Your task to perform on an android device: Do I have any events this weekend? Image 0: 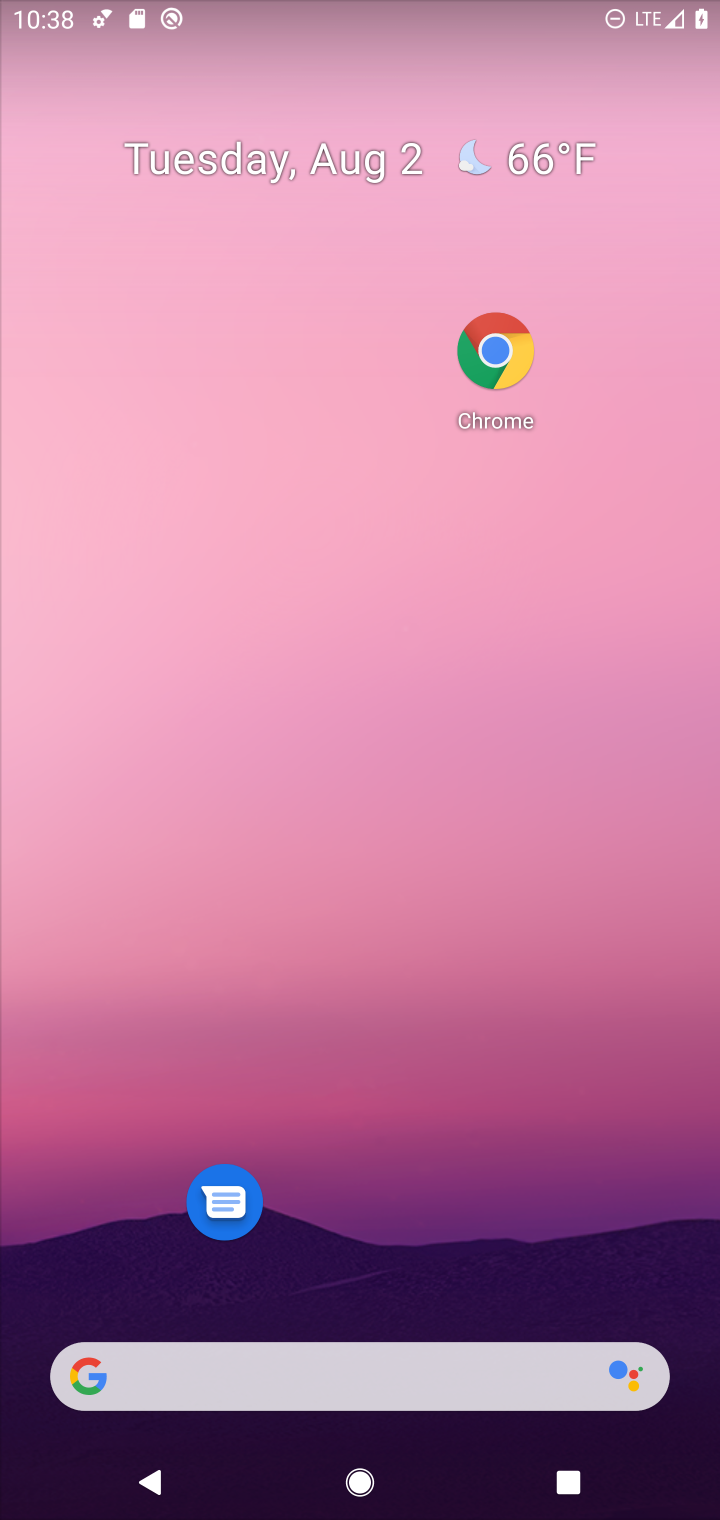
Step 0: drag from (386, 1297) to (376, 178)
Your task to perform on an android device: Do I have any events this weekend? Image 1: 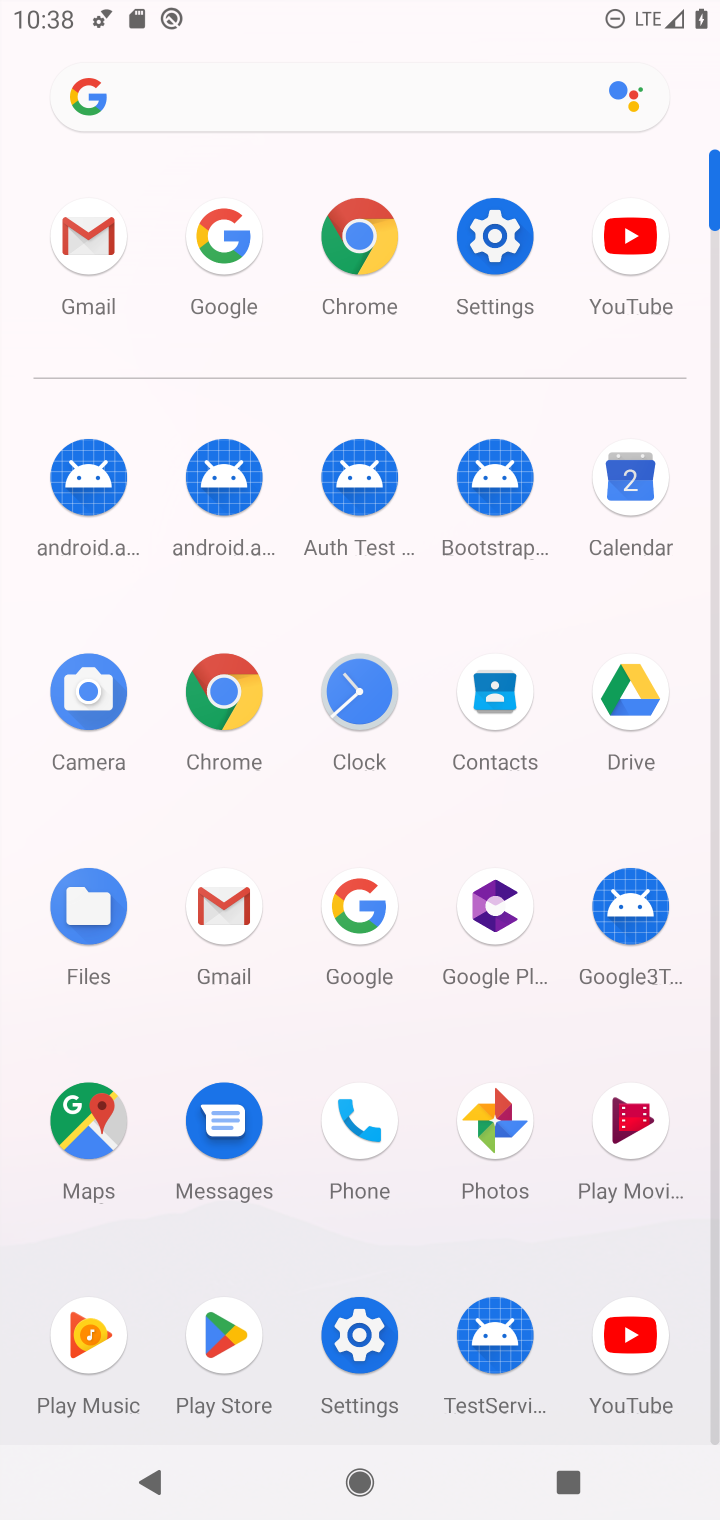
Step 1: click (626, 489)
Your task to perform on an android device: Do I have any events this weekend? Image 2: 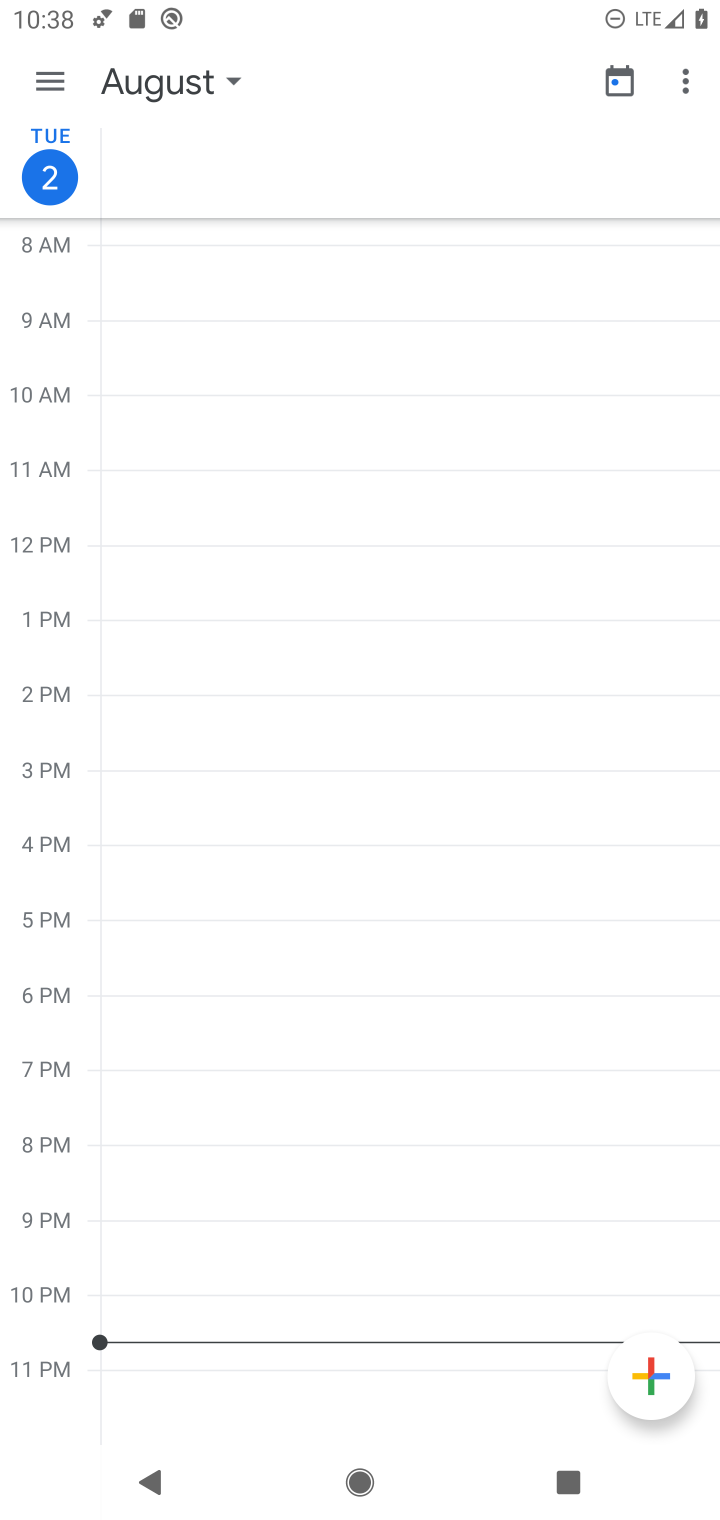
Step 2: click (47, 81)
Your task to perform on an android device: Do I have any events this weekend? Image 3: 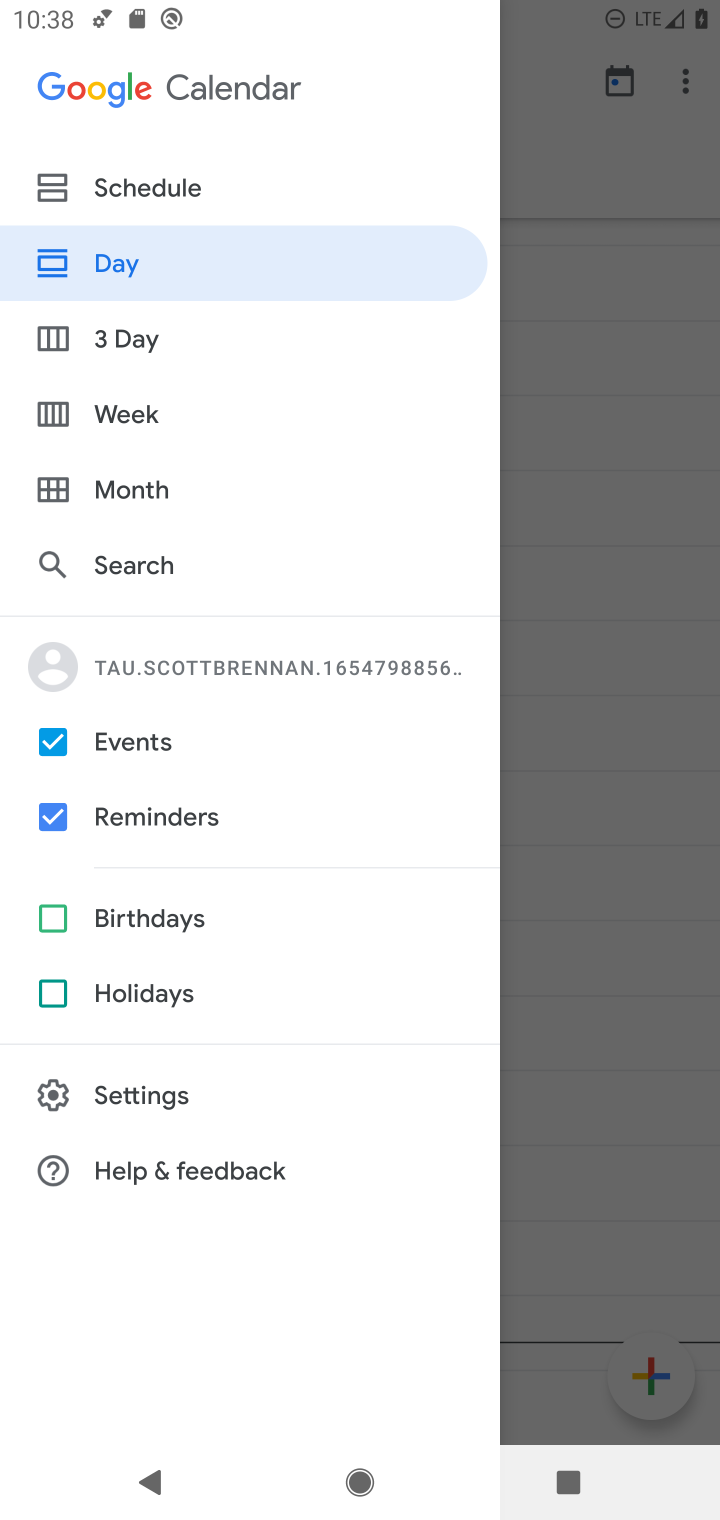
Step 3: click (70, 916)
Your task to perform on an android device: Do I have any events this weekend? Image 4: 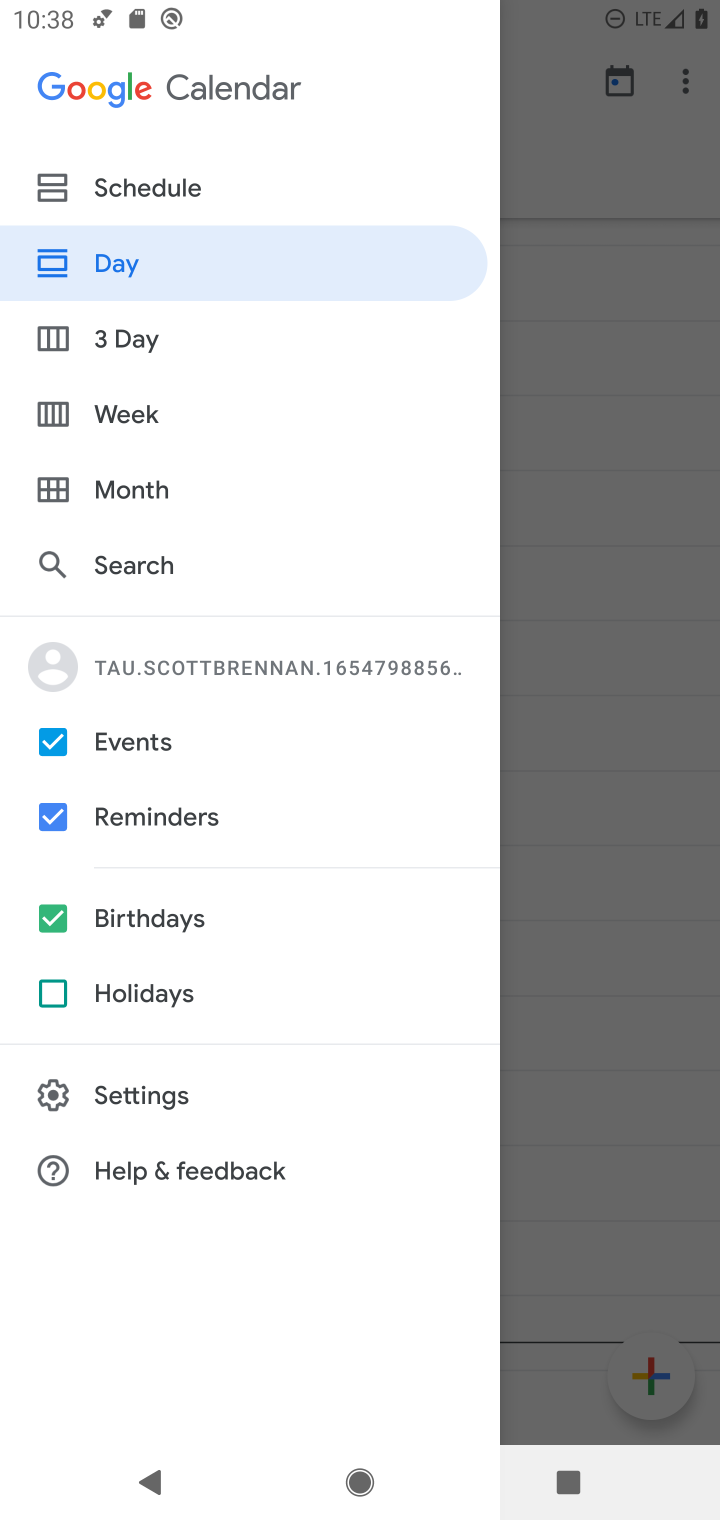
Step 4: click (55, 987)
Your task to perform on an android device: Do I have any events this weekend? Image 5: 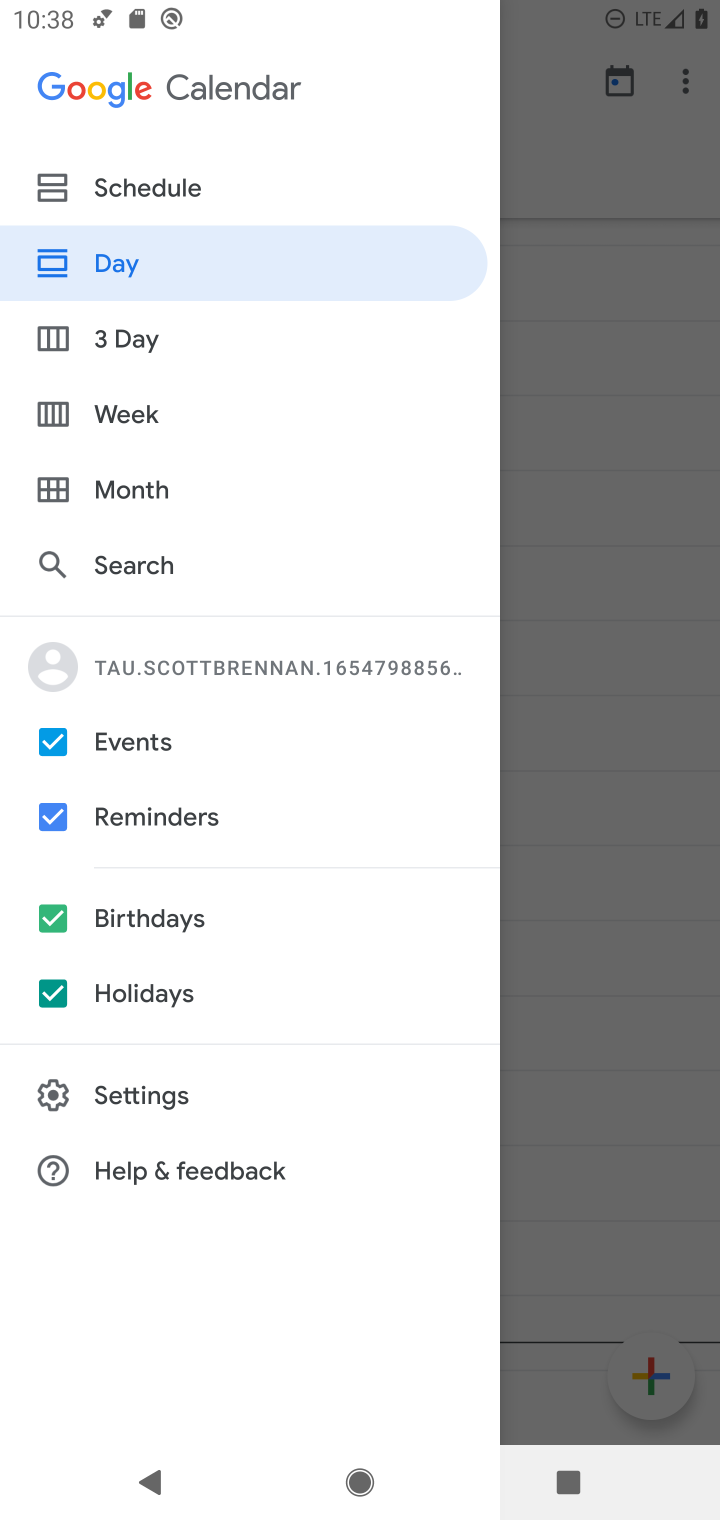
Step 5: click (97, 336)
Your task to perform on an android device: Do I have any events this weekend? Image 6: 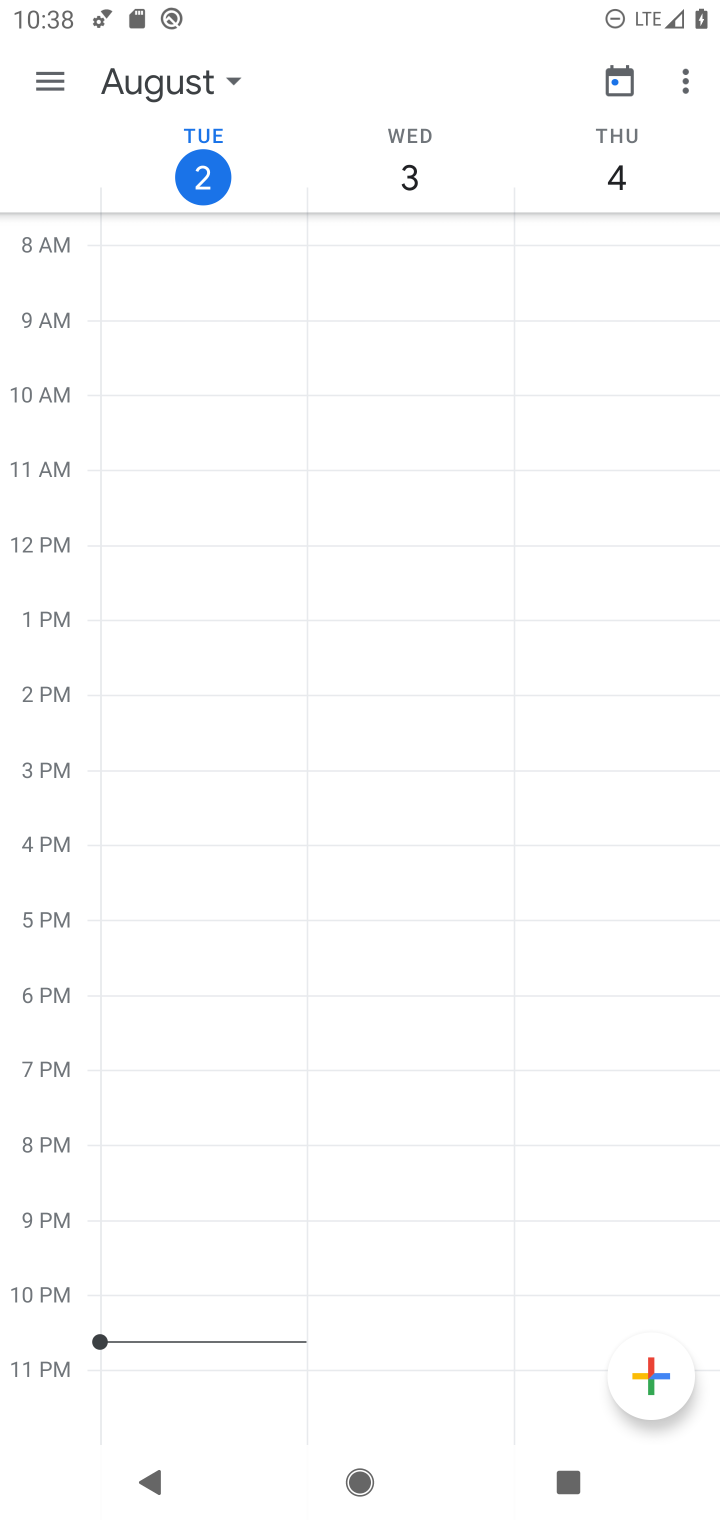
Step 6: task complete